Your task to perform on an android device: check the backup settings in the google photos Image 0: 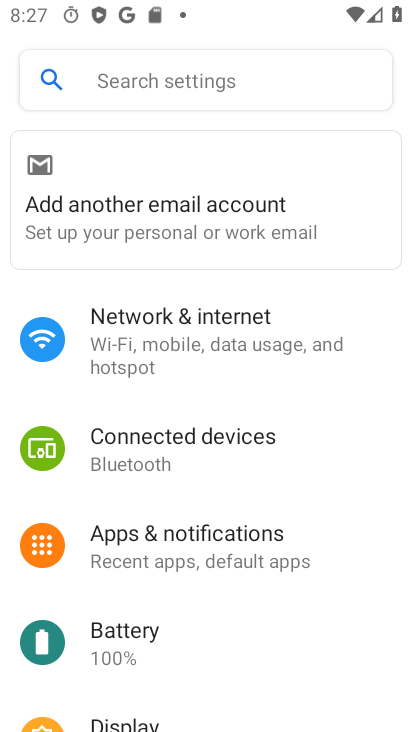
Step 0: press home button
Your task to perform on an android device: check the backup settings in the google photos Image 1: 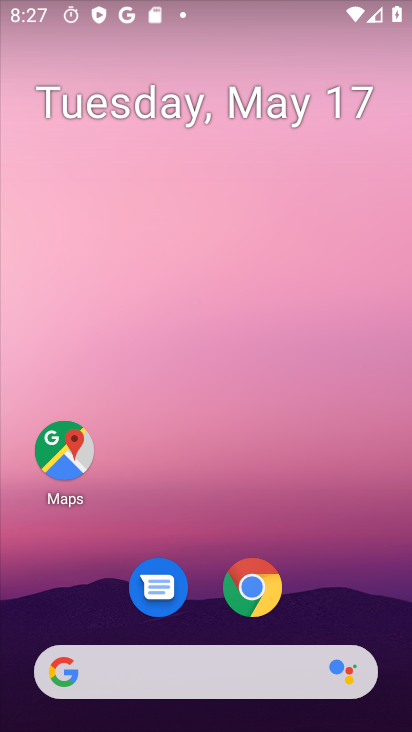
Step 1: drag from (192, 417) to (52, 66)
Your task to perform on an android device: check the backup settings in the google photos Image 2: 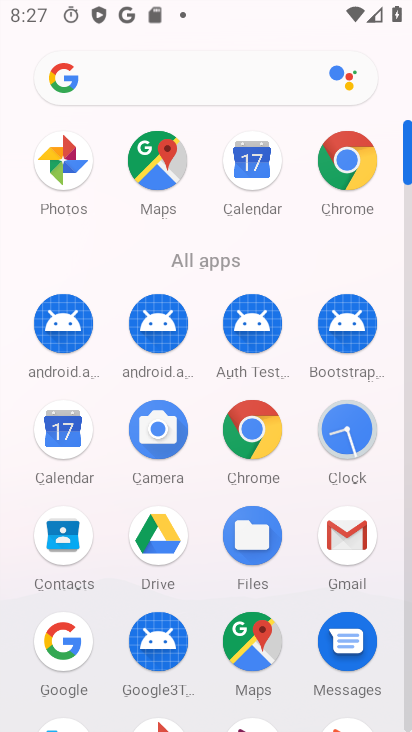
Step 2: click (70, 169)
Your task to perform on an android device: check the backup settings in the google photos Image 3: 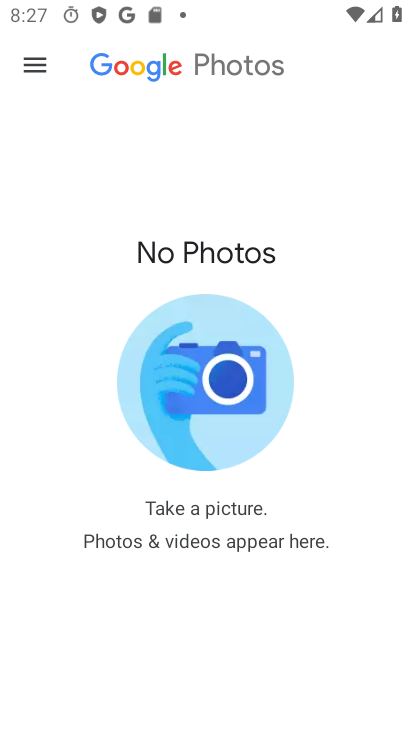
Step 3: click (39, 64)
Your task to perform on an android device: check the backup settings in the google photos Image 4: 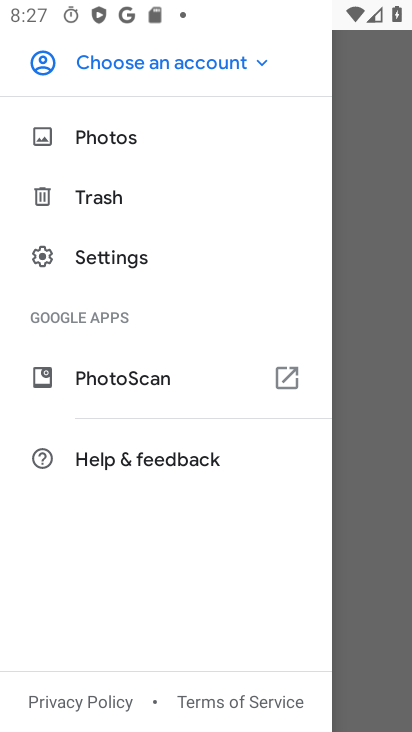
Step 4: click (104, 256)
Your task to perform on an android device: check the backup settings in the google photos Image 5: 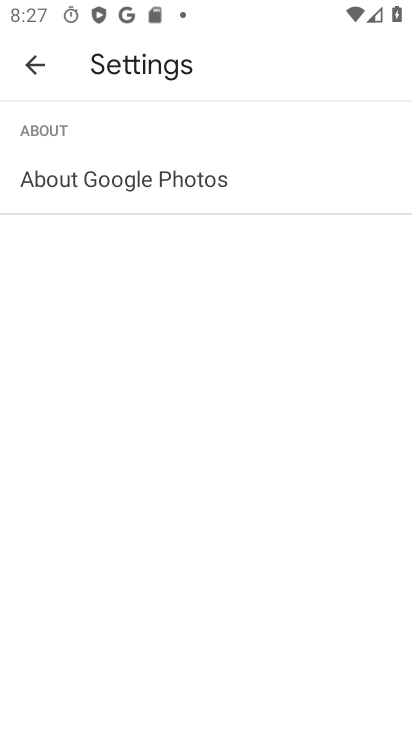
Step 5: click (21, 60)
Your task to perform on an android device: check the backup settings in the google photos Image 6: 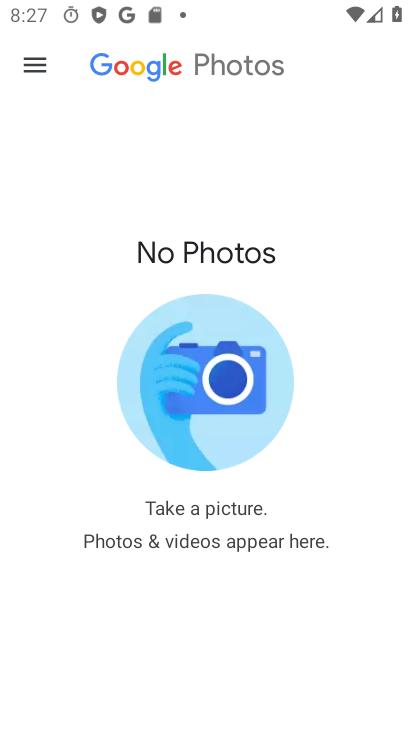
Step 6: task complete